Your task to perform on an android device: toggle show notifications on the lock screen Image 0: 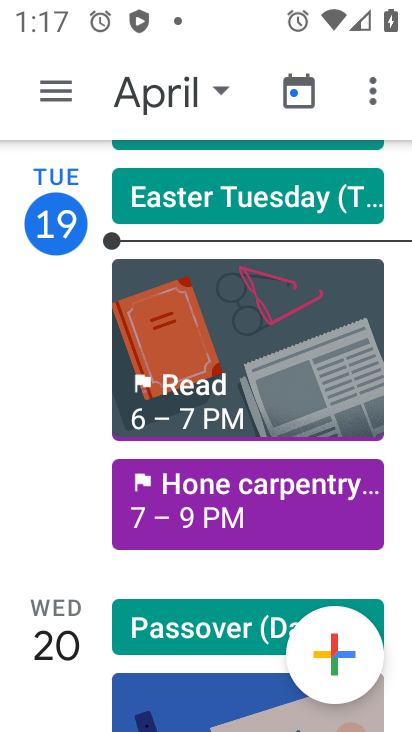
Step 0: press home button
Your task to perform on an android device: toggle show notifications on the lock screen Image 1: 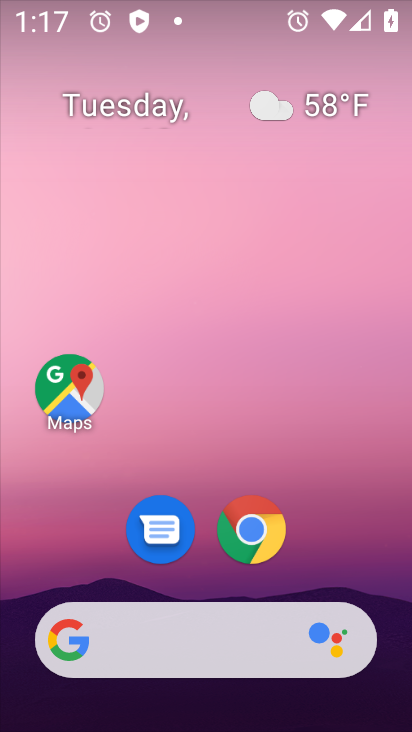
Step 1: drag from (263, 478) to (270, 78)
Your task to perform on an android device: toggle show notifications on the lock screen Image 2: 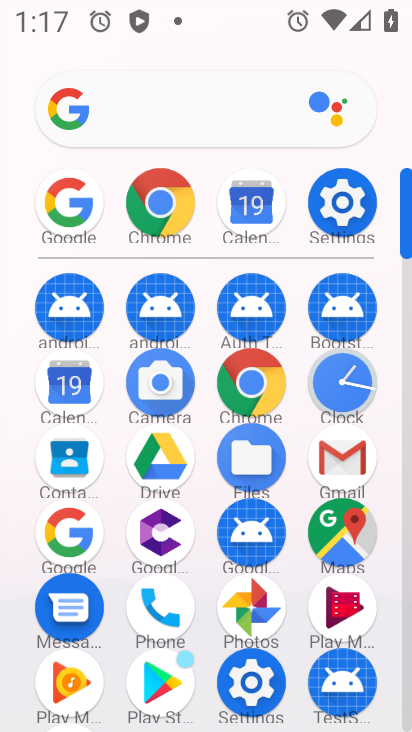
Step 2: click (343, 231)
Your task to perform on an android device: toggle show notifications on the lock screen Image 3: 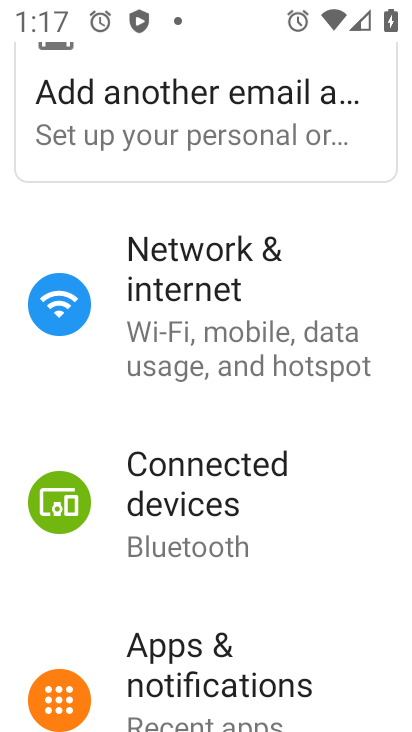
Step 3: click (227, 660)
Your task to perform on an android device: toggle show notifications on the lock screen Image 4: 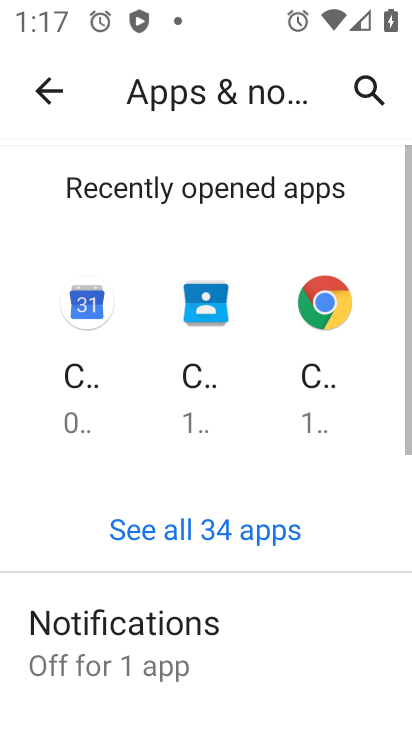
Step 4: click (227, 660)
Your task to perform on an android device: toggle show notifications on the lock screen Image 5: 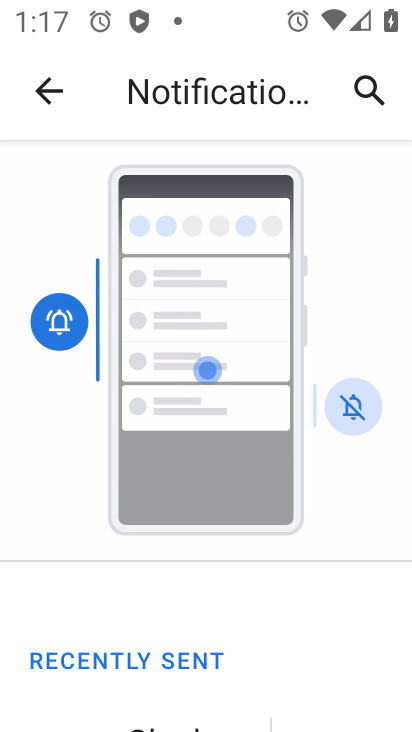
Step 5: drag from (228, 600) to (258, 255)
Your task to perform on an android device: toggle show notifications on the lock screen Image 6: 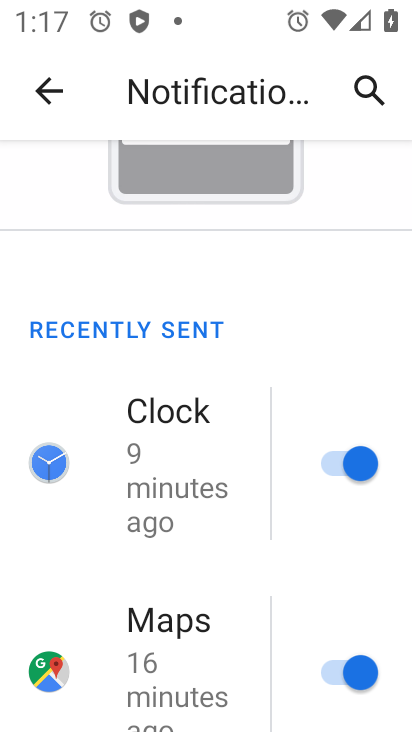
Step 6: drag from (218, 347) to (220, 289)
Your task to perform on an android device: toggle show notifications on the lock screen Image 7: 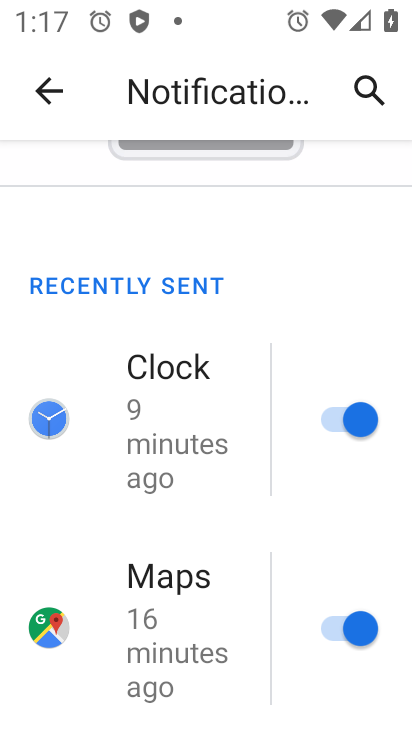
Step 7: drag from (172, 569) to (191, 346)
Your task to perform on an android device: toggle show notifications on the lock screen Image 8: 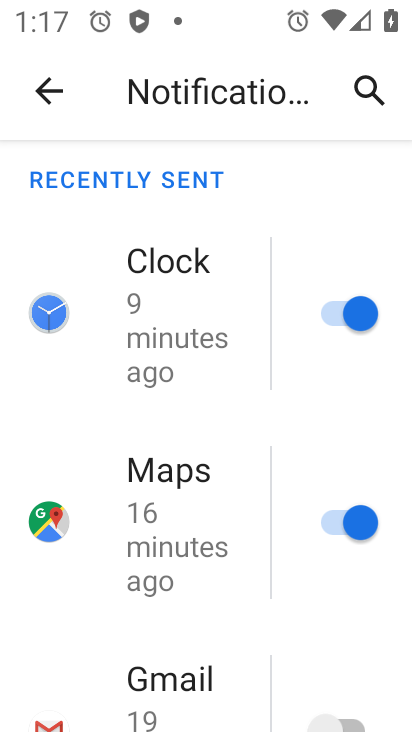
Step 8: drag from (196, 550) to (206, 396)
Your task to perform on an android device: toggle show notifications on the lock screen Image 9: 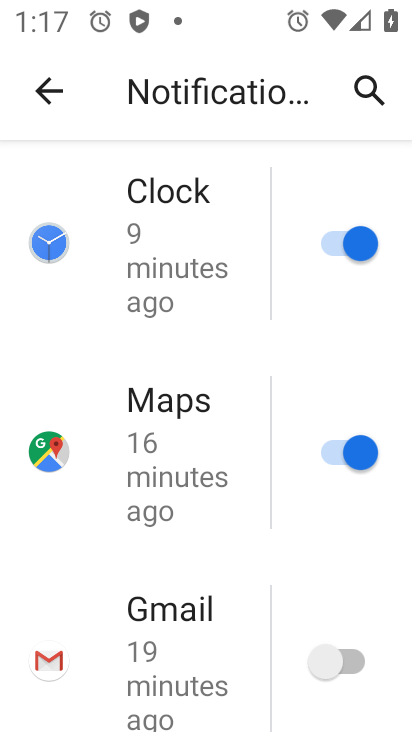
Step 9: drag from (204, 576) to (202, 292)
Your task to perform on an android device: toggle show notifications on the lock screen Image 10: 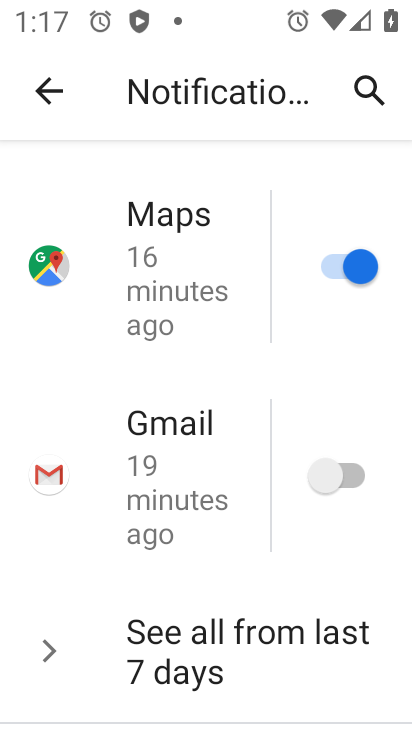
Step 10: drag from (194, 565) to (202, 376)
Your task to perform on an android device: toggle show notifications on the lock screen Image 11: 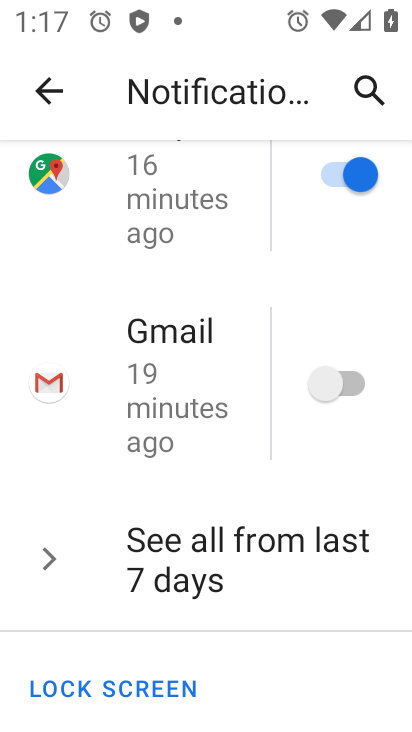
Step 11: drag from (195, 592) to (227, 416)
Your task to perform on an android device: toggle show notifications on the lock screen Image 12: 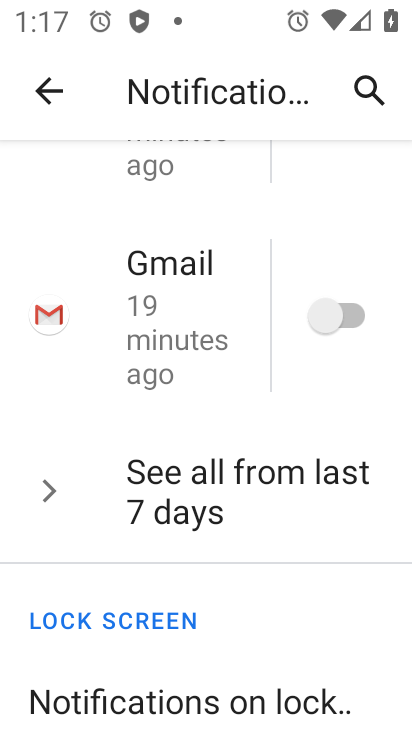
Step 12: drag from (222, 632) to (245, 243)
Your task to perform on an android device: toggle show notifications on the lock screen Image 13: 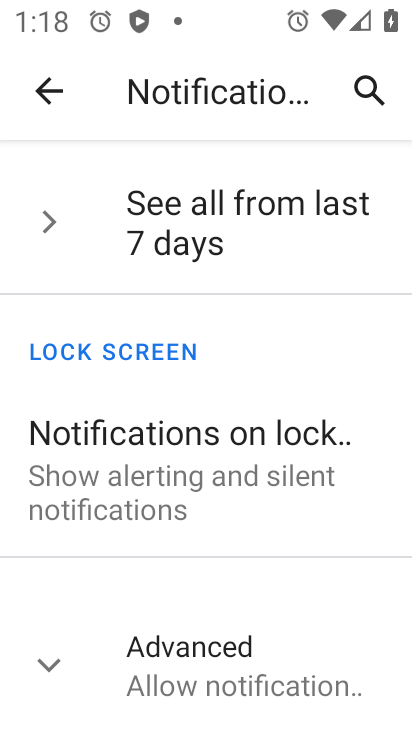
Step 13: click (219, 452)
Your task to perform on an android device: toggle show notifications on the lock screen Image 14: 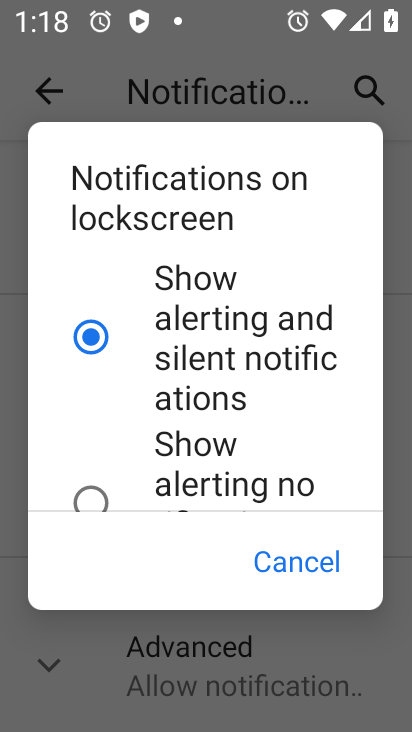
Step 14: drag from (283, 460) to (297, 130)
Your task to perform on an android device: toggle show notifications on the lock screen Image 15: 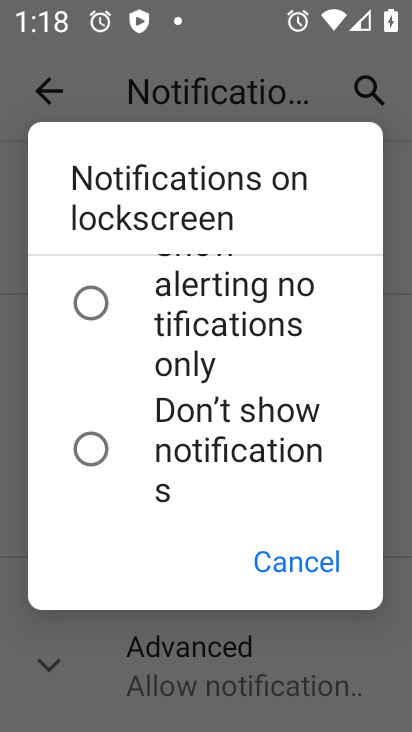
Step 15: click (88, 459)
Your task to perform on an android device: toggle show notifications on the lock screen Image 16: 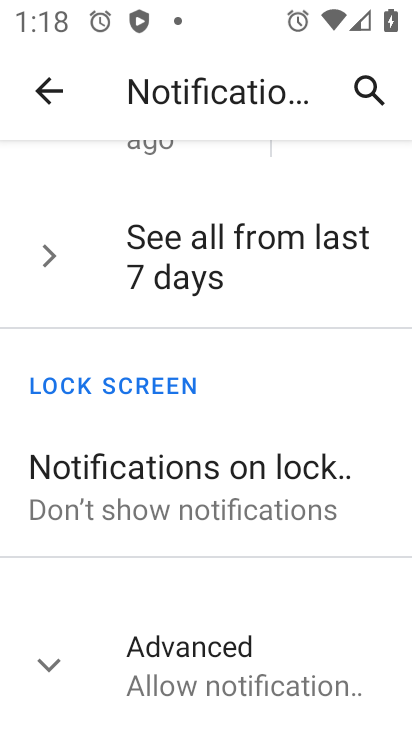
Step 16: task complete